Your task to perform on an android device: What's on my calendar tomorrow? Image 0: 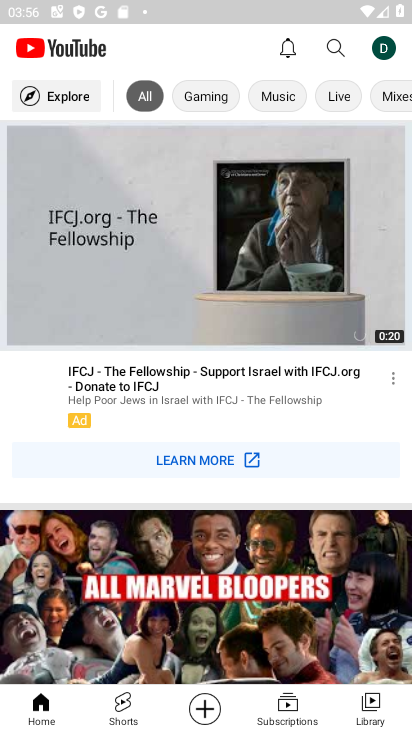
Step 0: drag from (195, 612) to (149, 103)
Your task to perform on an android device: What's on my calendar tomorrow? Image 1: 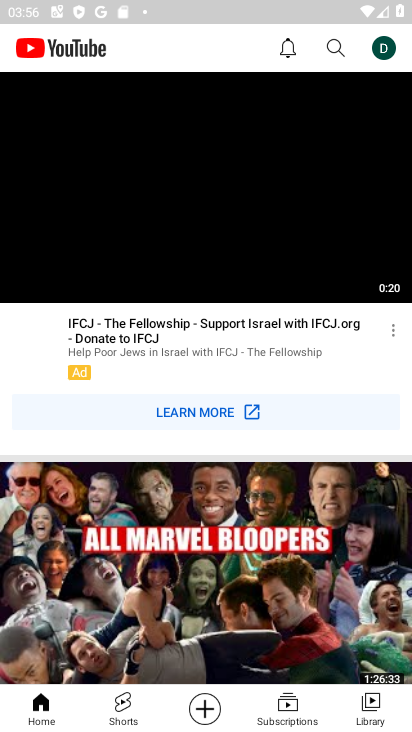
Step 1: press home button
Your task to perform on an android device: What's on my calendar tomorrow? Image 2: 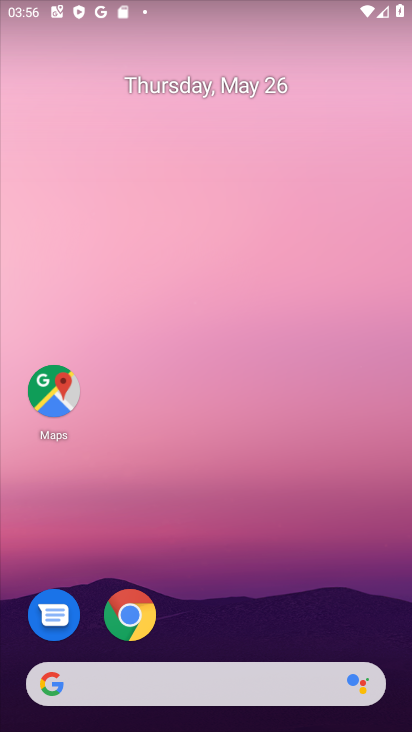
Step 2: drag from (217, 618) to (162, 92)
Your task to perform on an android device: What's on my calendar tomorrow? Image 3: 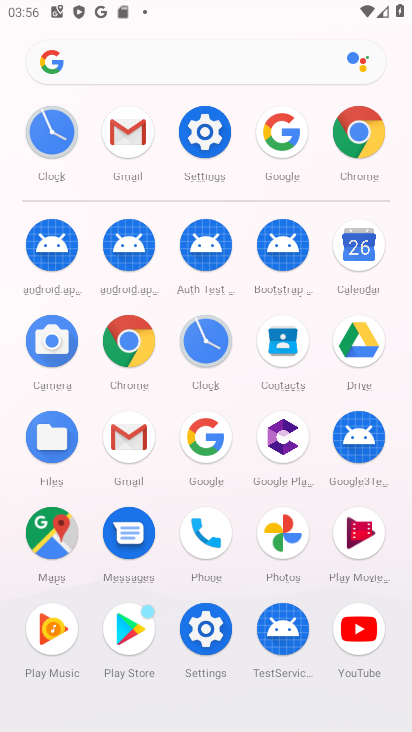
Step 3: click (348, 287)
Your task to perform on an android device: What's on my calendar tomorrow? Image 4: 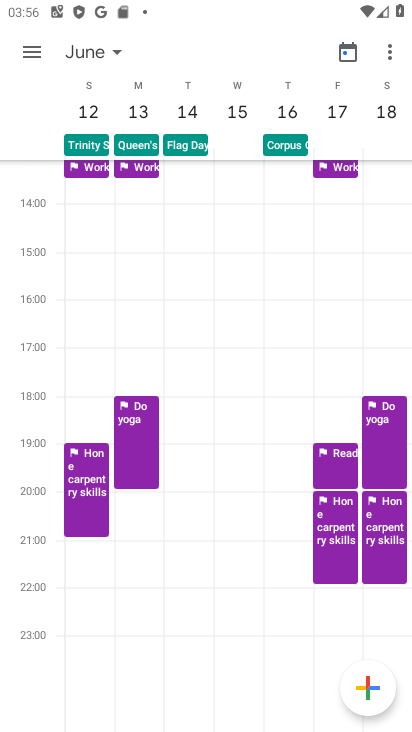
Step 4: click (79, 60)
Your task to perform on an android device: What's on my calendar tomorrow? Image 5: 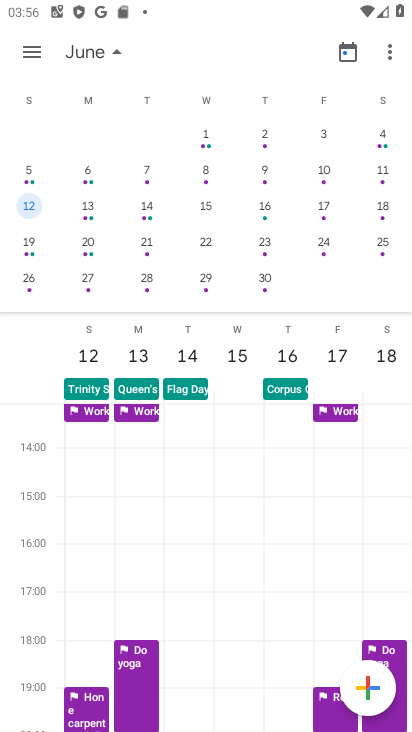
Step 5: click (409, 233)
Your task to perform on an android device: What's on my calendar tomorrow? Image 6: 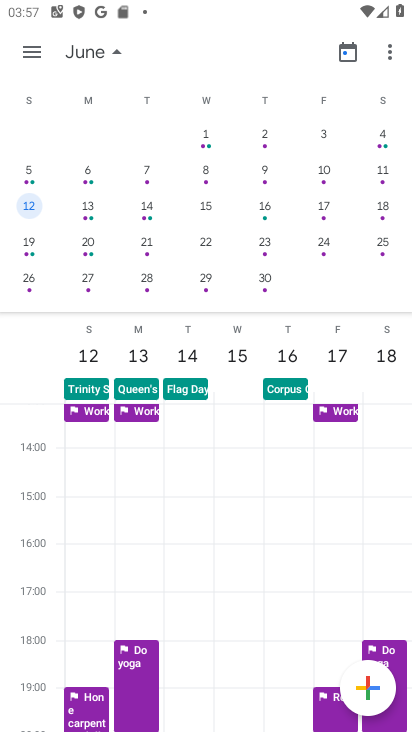
Step 6: drag from (64, 191) to (374, 199)
Your task to perform on an android device: What's on my calendar tomorrow? Image 7: 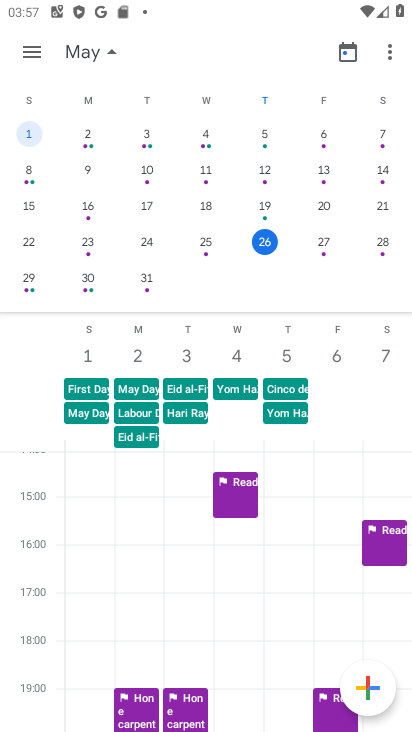
Step 7: click (321, 246)
Your task to perform on an android device: What's on my calendar tomorrow? Image 8: 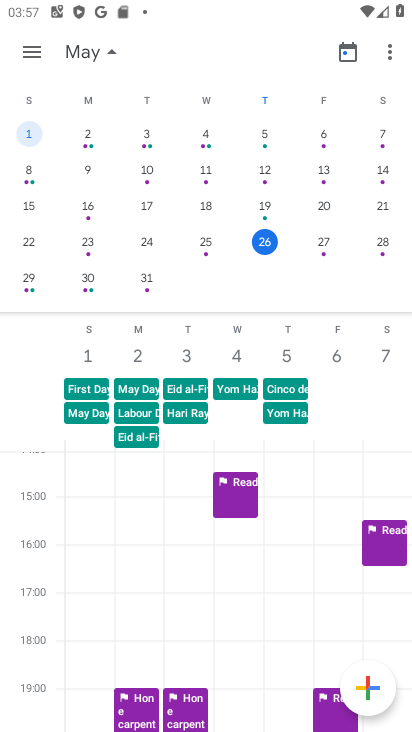
Step 8: click (323, 243)
Your task to perform on an android device: What's on my calendar tomorrow? Image 9: 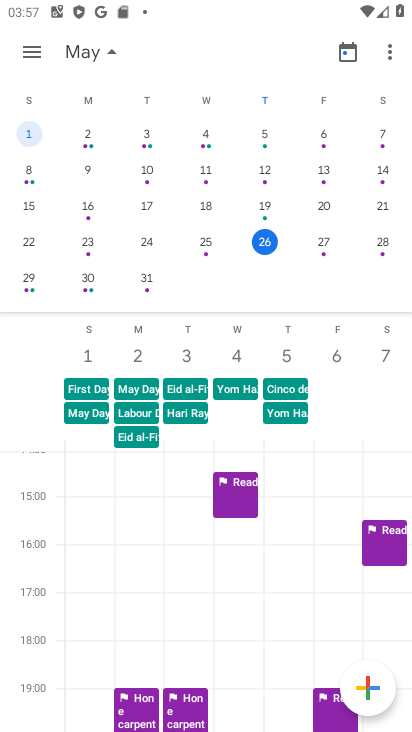
Step 9: click (323, 243)
Your task to perform on an android device: What's on my calendar tomorrow? Image 10: 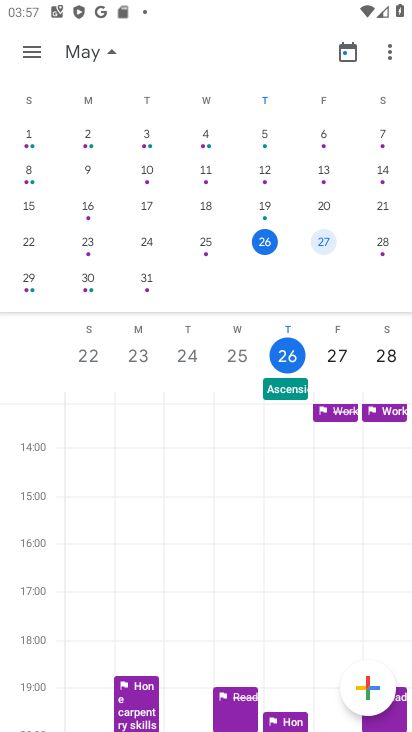
Step 10: click (26, 58)
Your task to perform on an android device: What's on my calendar tomorrow? Image 11: 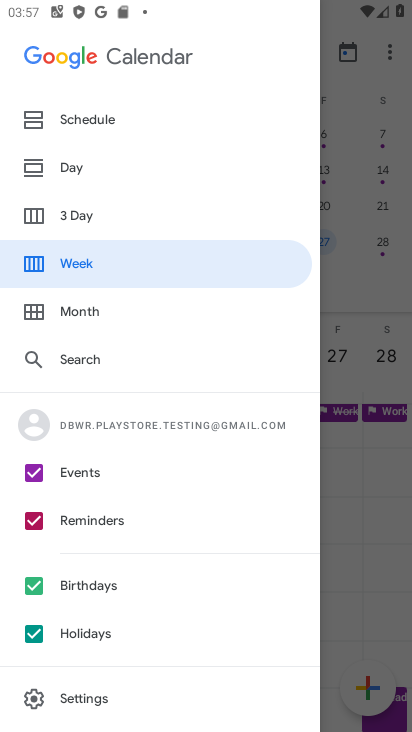
Step 11: click (69, 117)
Your task to perform on an android device: What's on my calendar tomorrow? Image 12: 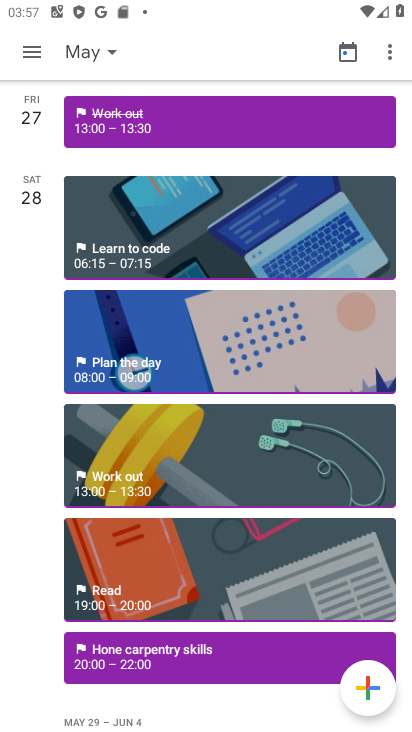
Step 12: task complete